Your task to perform on an android device: toggle notifications settings in the gmail app Image 0: 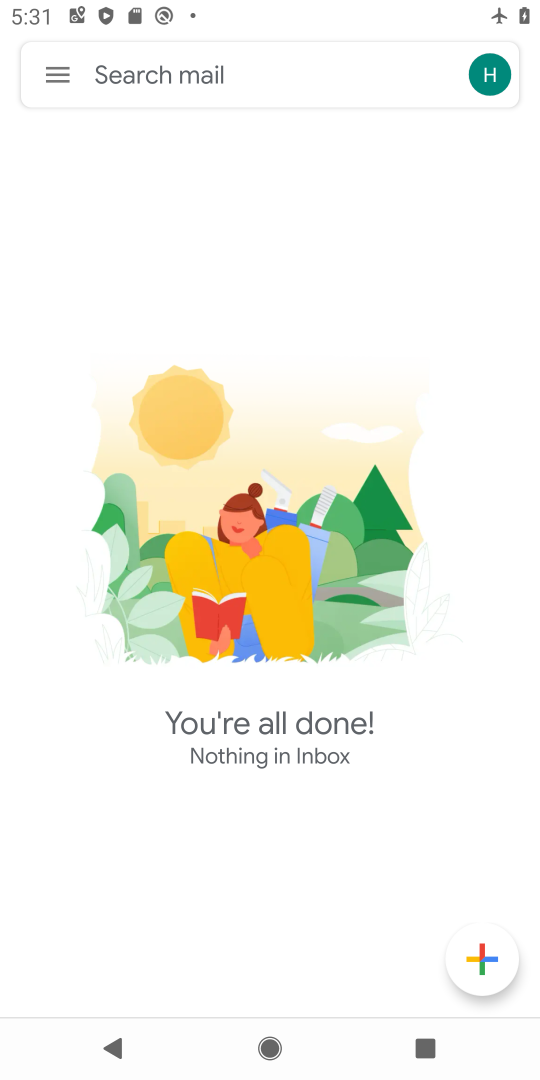
Step 0: press home button
Your task to perform on an android device: toggle notifications settings in the gmail app Image 1: 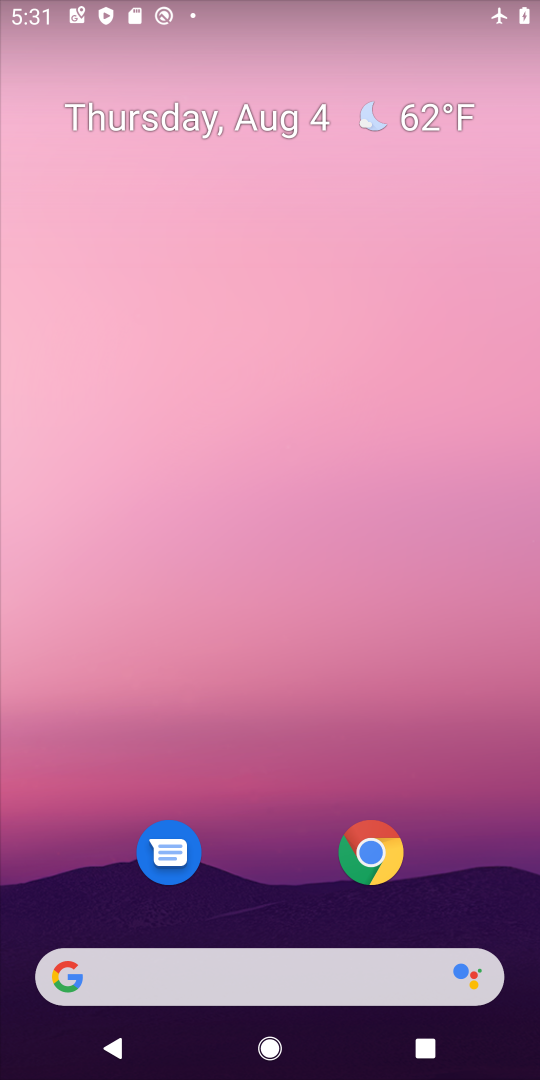
Step 1: drag from (282, 854) to (233, 276)
Your task to perform on an android device: toggle notifications settings in the gmail app Image 2: 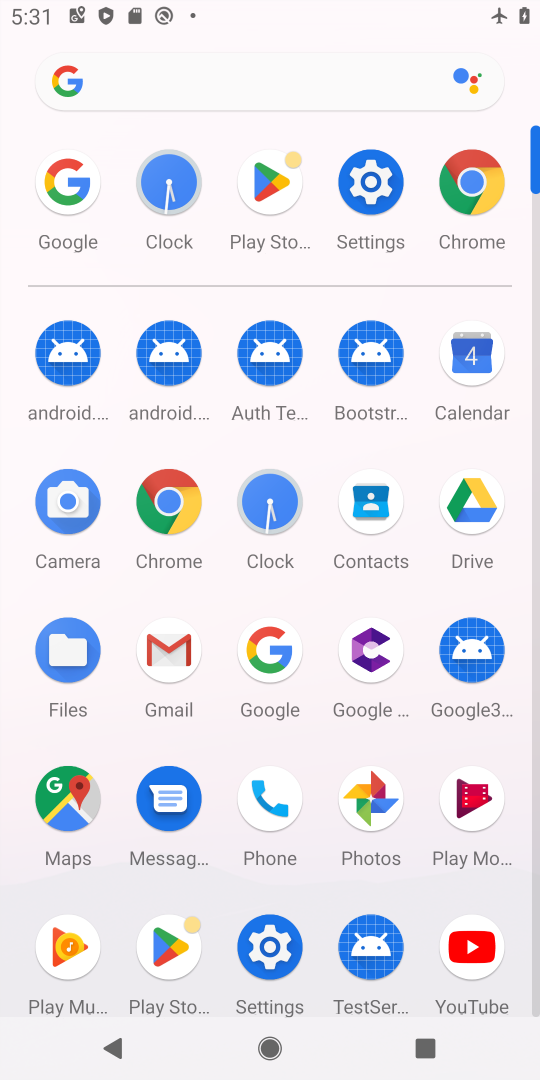
Step 2: click (165, 653)
Your task to perform on an android device: toggle notifications settings in the gmail app Image 3: 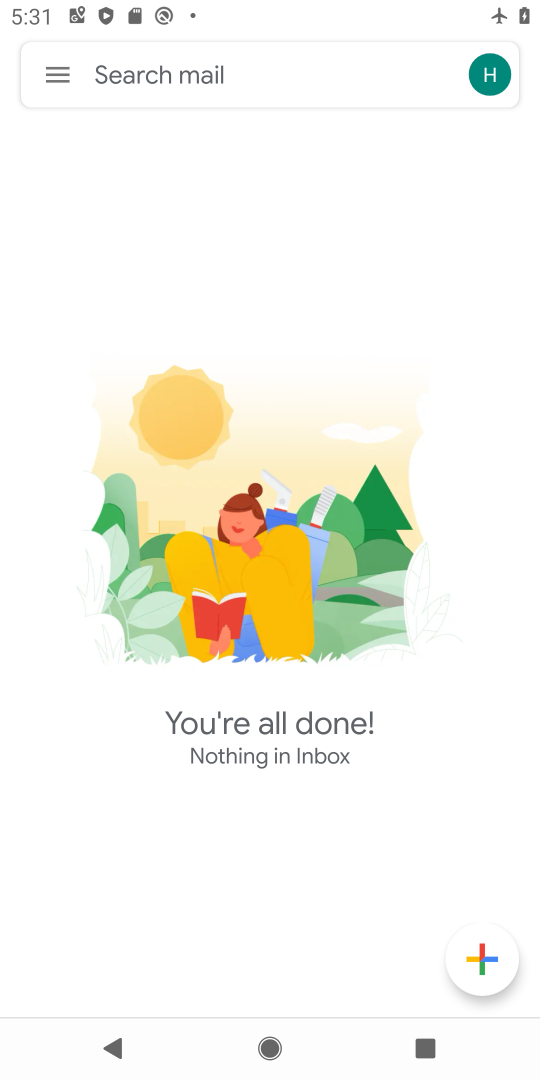
Step 3: click (51, 75)
Your task to perform on an android device: toggle notifications settings in the gmail app Image 4: 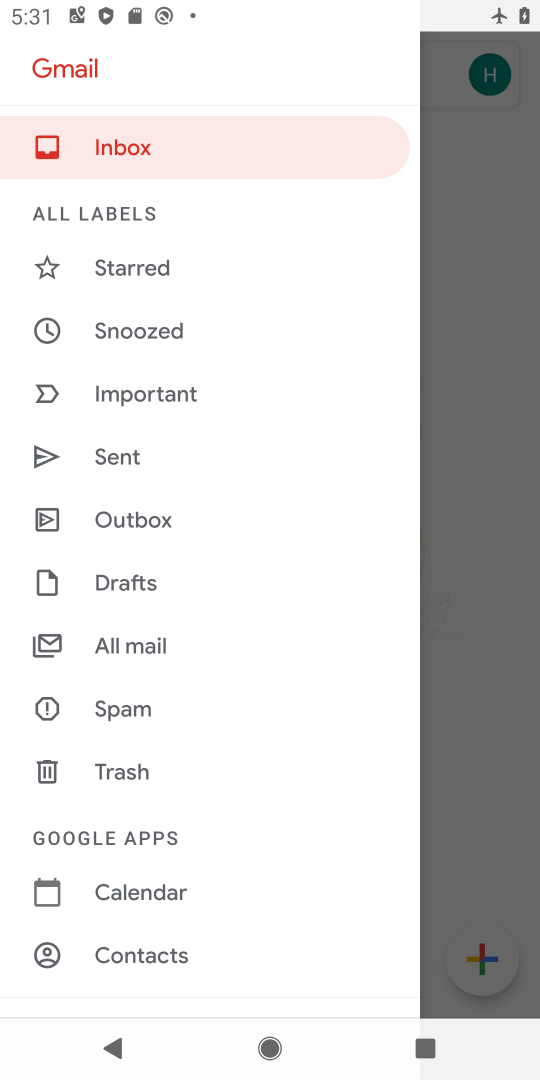
Step 4: drag from (136, 930) to (98, 547)
Your task to perform on an android device: toggle notifications settings in the gmail app Image 5: 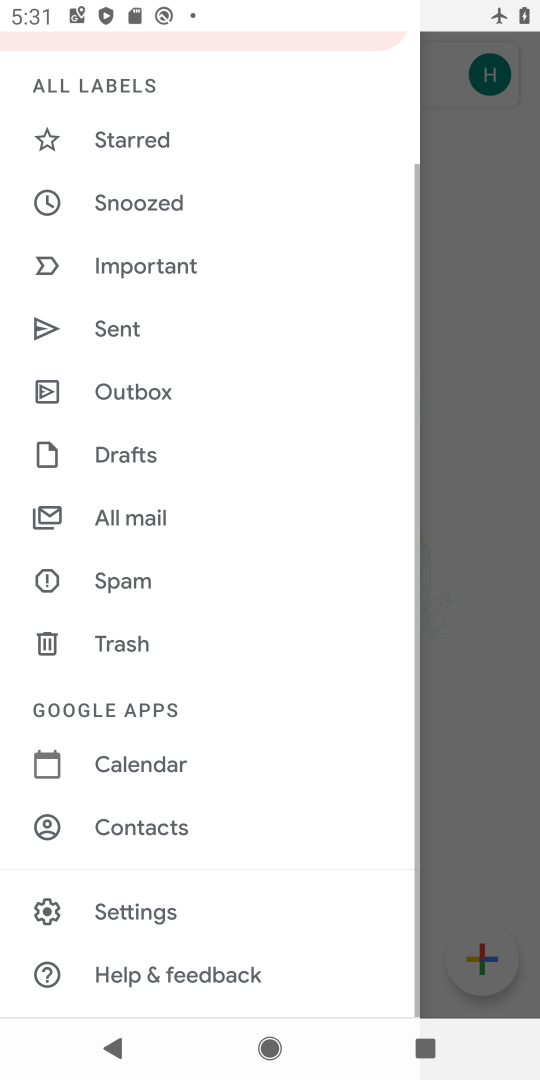
Step 5: click (118, 912)
Your task to perform on an android device: toggle notifications settings in the gmail app Image 6: 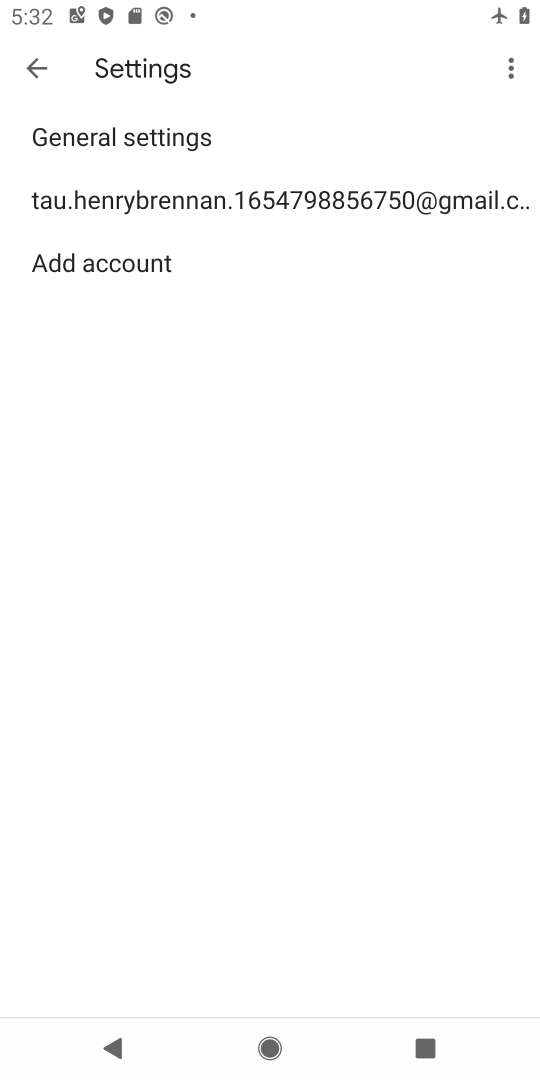
Step 6: click (229, 207)
Your task to perform on an android device: toggle notifications settings in the gmail app Image 7: 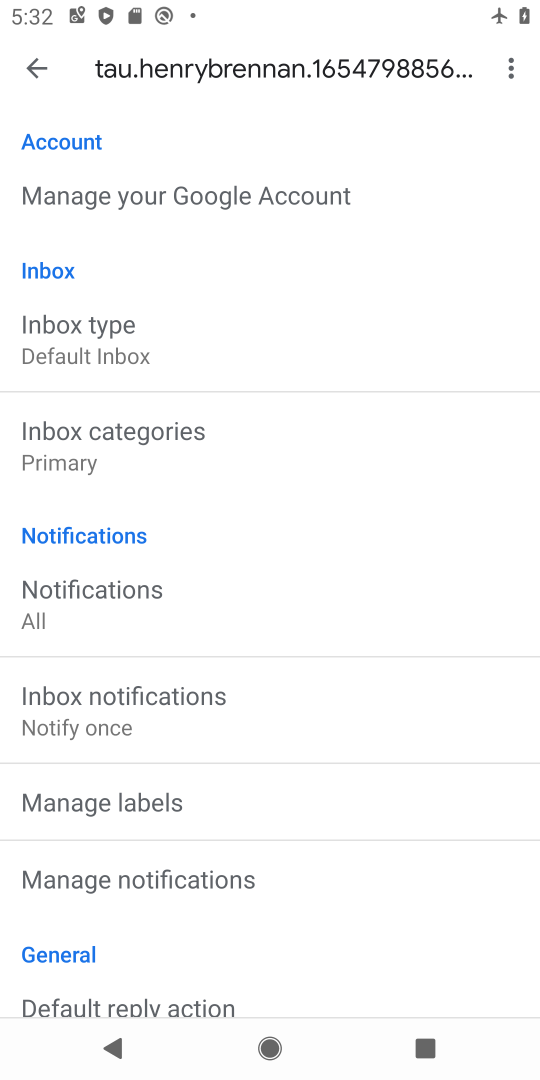
Step 7: click (49, 607)
Your task to perform on an android device: toggle notifications settings in the gmail app Image 8: 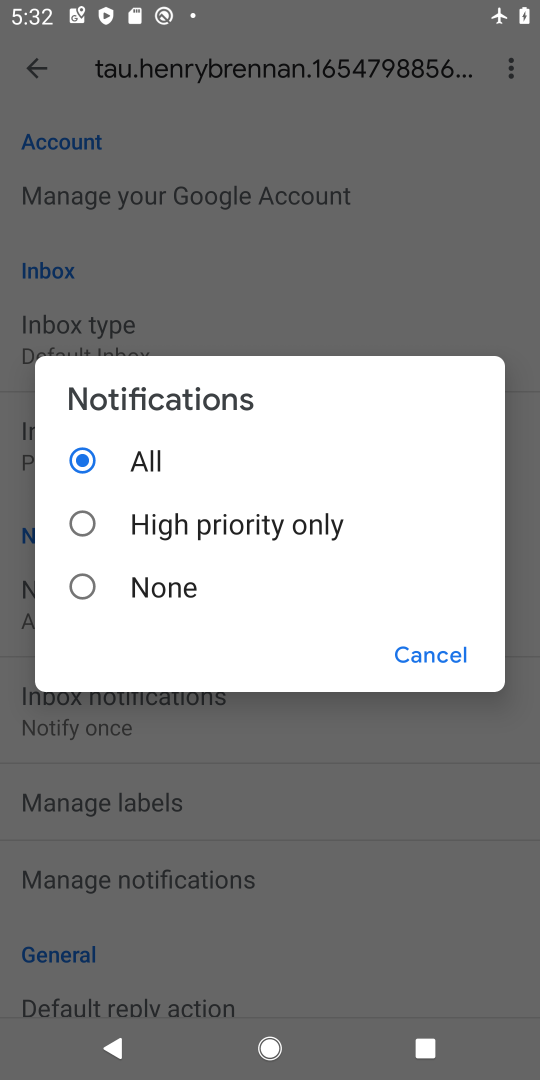
Step 8: click (85, 534)
Your task to perform on an android device: toggle notifications settings in the gmail app Image 9: 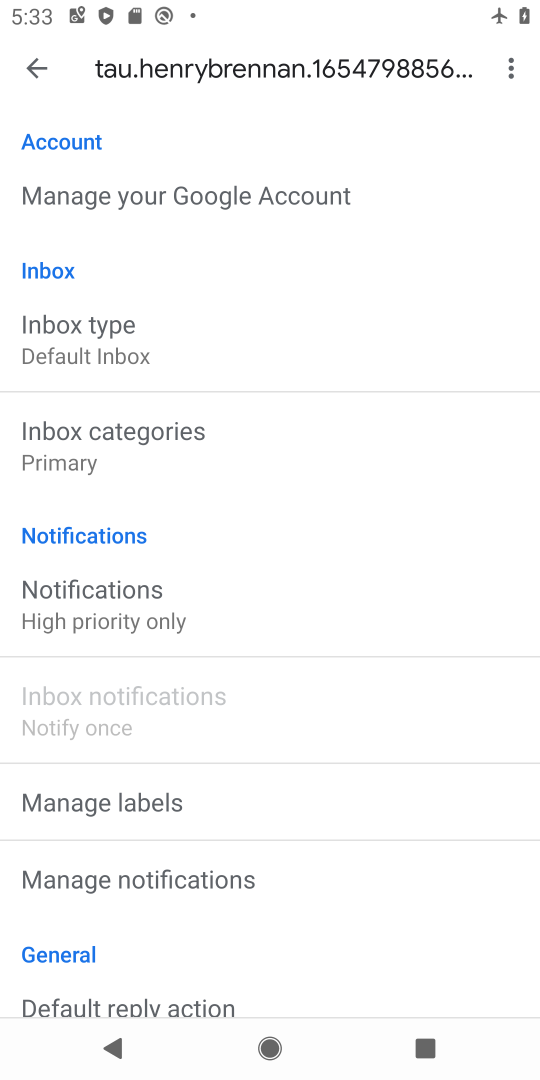
Step 9: task complete